Your task to perform on an android device: Go to Android settings Image 0: 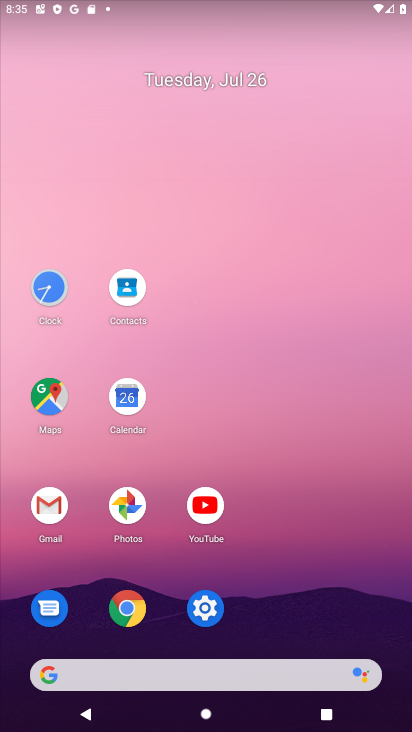
Step 0: click (200, 611)
Your task to perform on an android device: Go to Android settings Image 1: 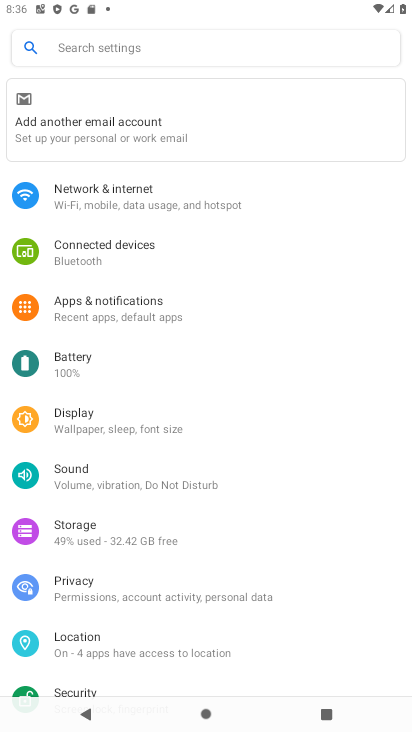
Step 1: drag from (277, 660) to (322, 130)
Your task to perform on an android device: Go to Android settings Image 2: 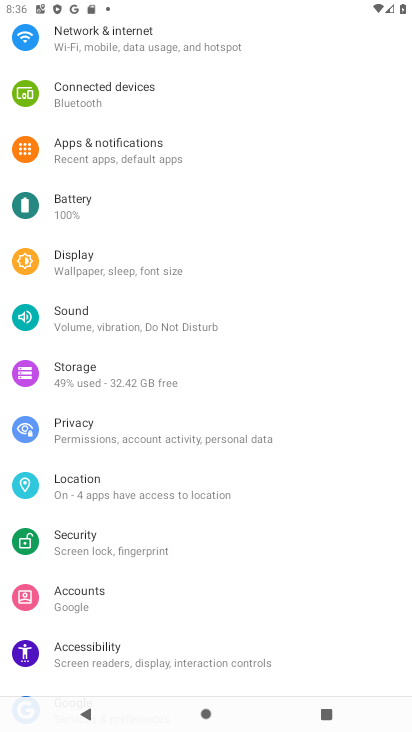
Step 2: drag from (207, 589) to (267, 93)
Your task to perform on an android device: Go to Android settings Image 3: 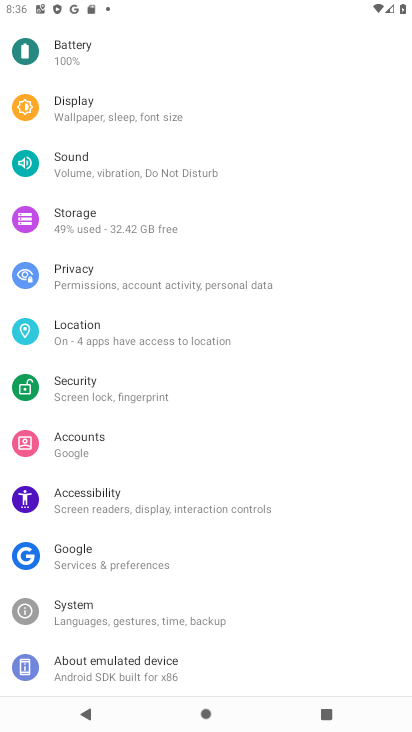
Step 3: click (117, 662)
Your task to perform on an android device: Go to Android settings Image 4: 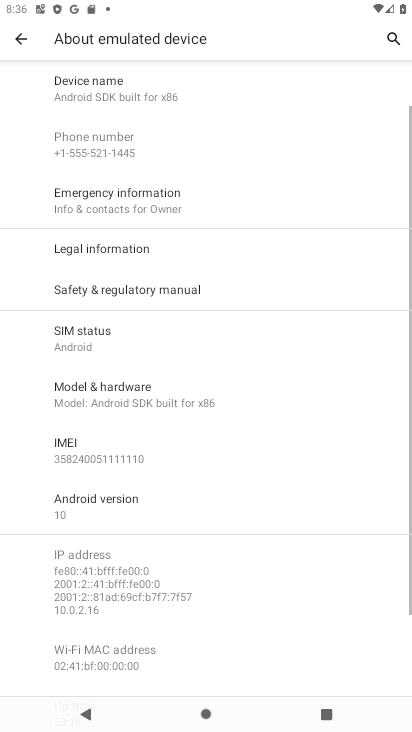
Step 4: task complete